Your task to perform on an android device: How do I get to the nearest Nordstrom? Image 0: 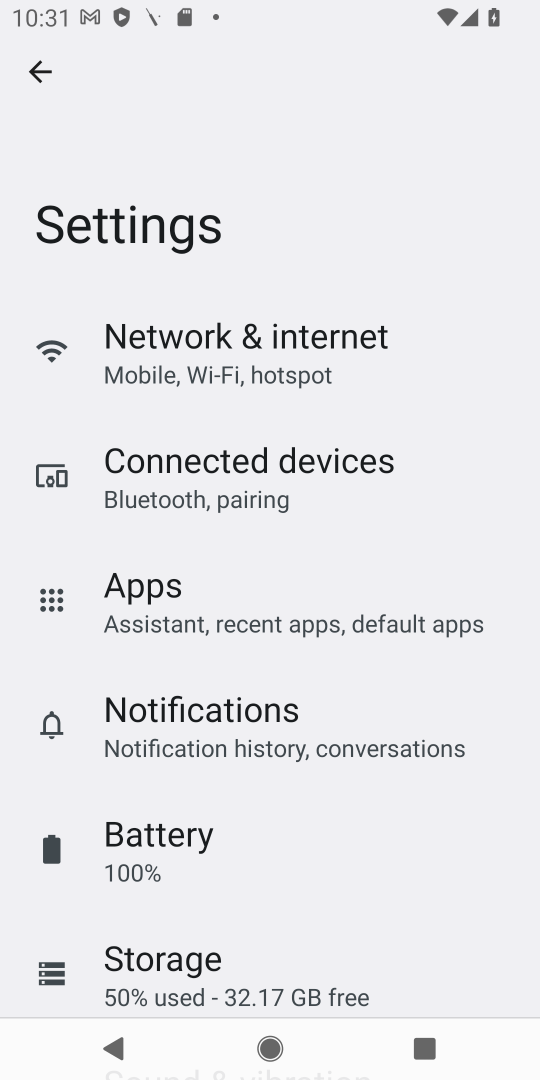
Step 0: press home button
Your task to perform on an android device: How do I get to the nearest Nordstrom? Image 1: 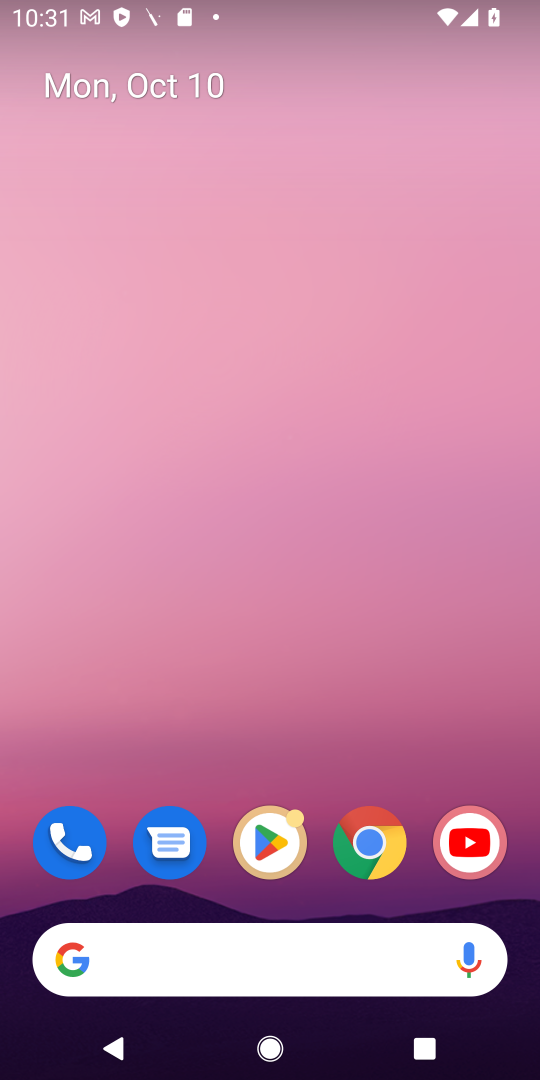
Step 1: click (371, 843)
Your task to perform on an android device: How do I get to the nearest Nordstrom? Image 2: 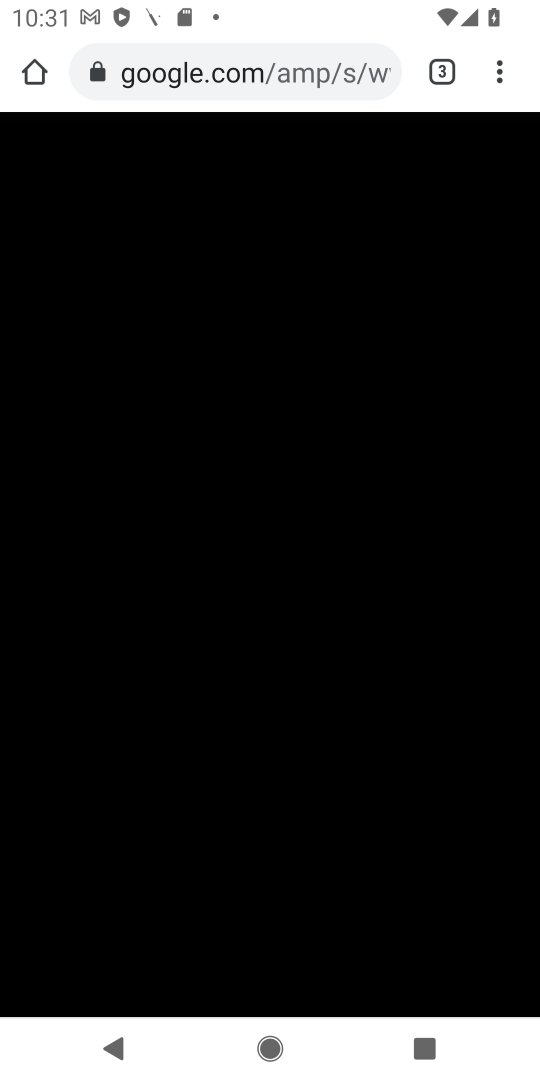
Step 2: click (176, 88)
Your task to perform on an android device: How do I get to the nearest Nordstrom? Image 3: 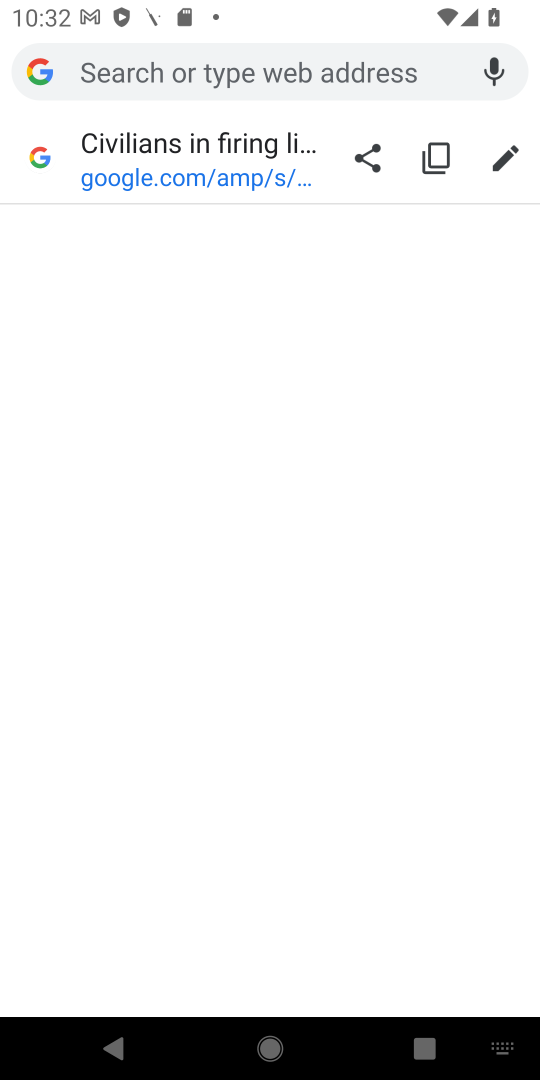
Step 3: type "nearest nordstrom"
Your task to perform on an android device: How do I get to the nearest Nordstrom? Image 4: 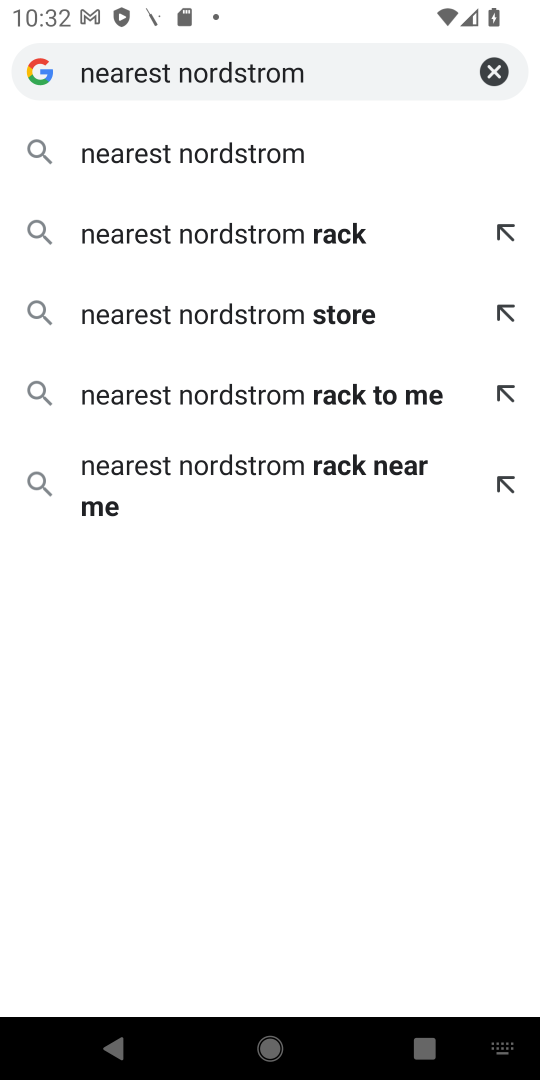
Step 4: click (189, 166)
Your task to perform on an android device: How do I get to the nearest Nordstrom? Image 5: 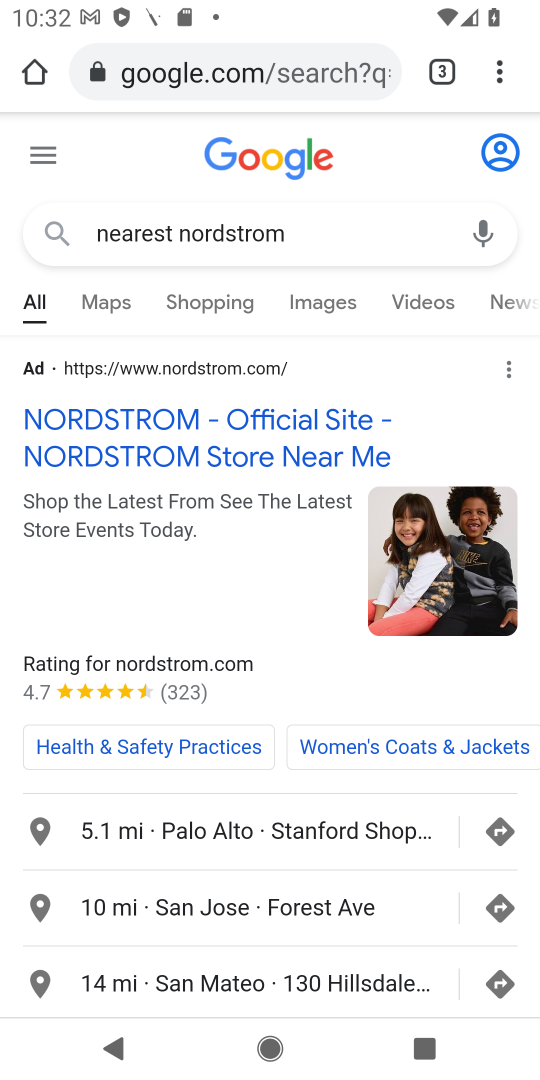
Step 5: task complete